Your task to perform on an android device: Open the map Image 0: 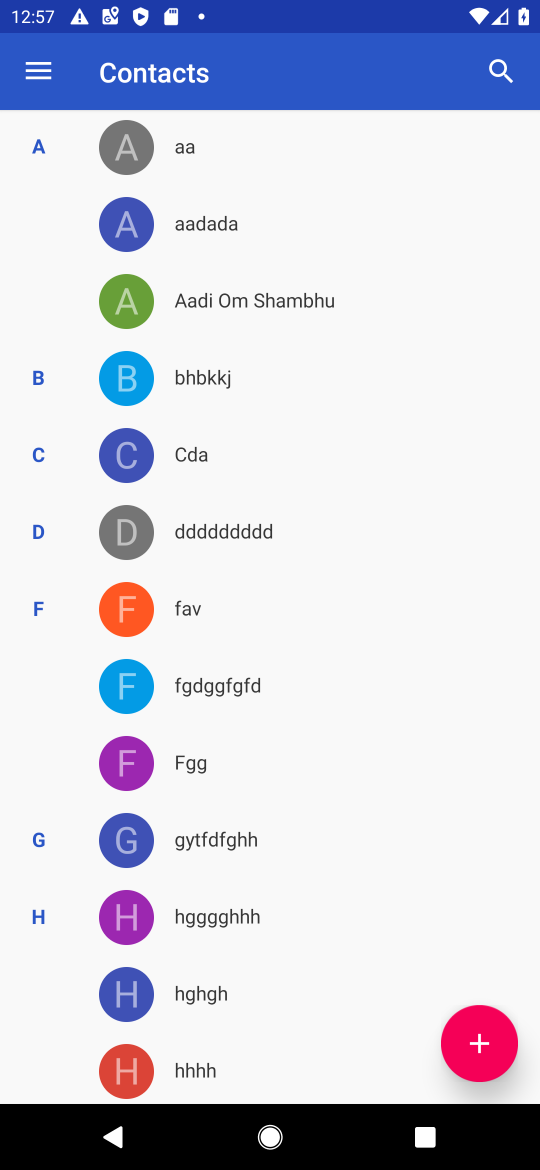
Step 0: press back button
Your task to perform on an android device: Open the map Image 1: 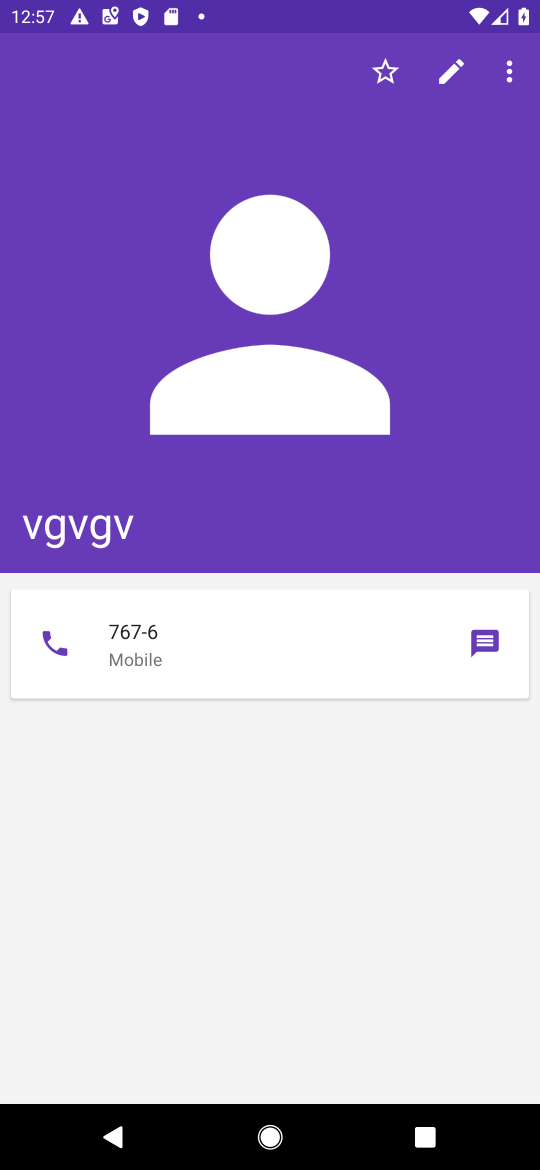
Step 1: press back button
Your task to perform on an android device: Open the map Image 2: 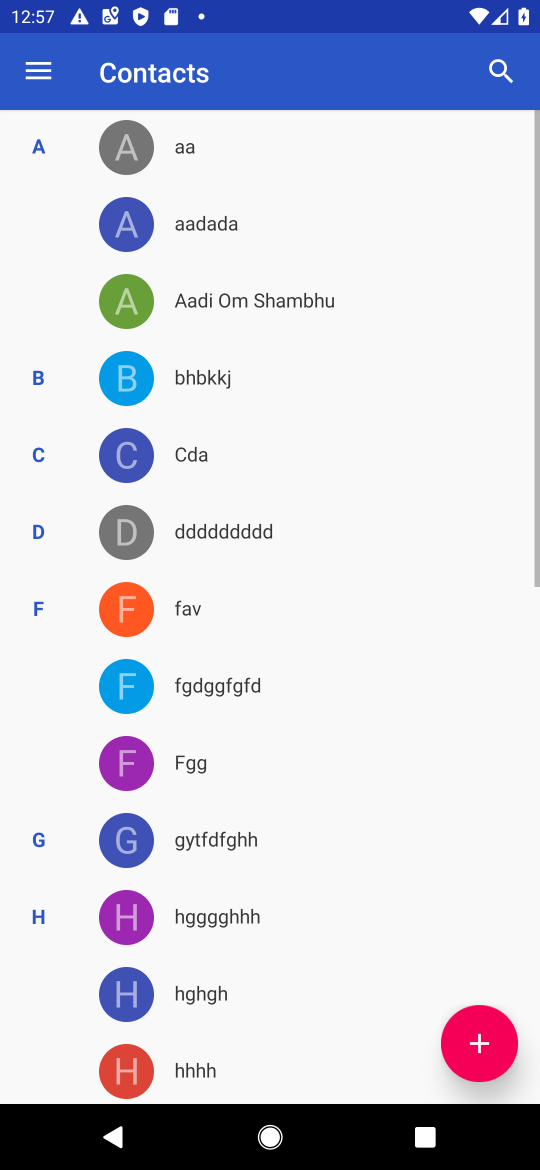
Step 2: press back button
Your task to perform on an android device: Open the map Image 3: 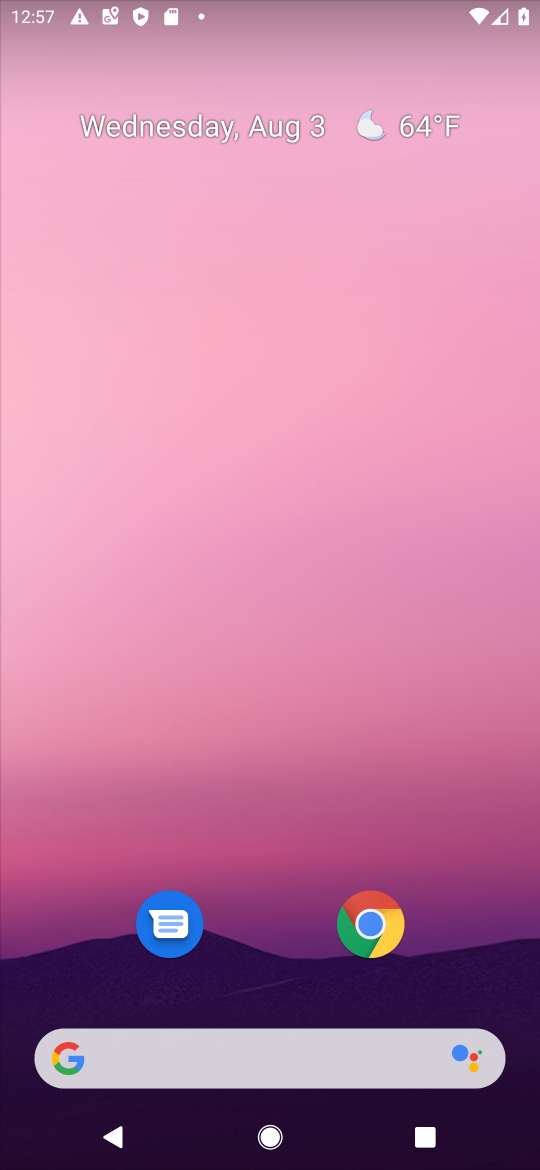
Step 3: drag from (343, 827) to (481, 29)
Your task to perform on an android device: Open the map Image 4: 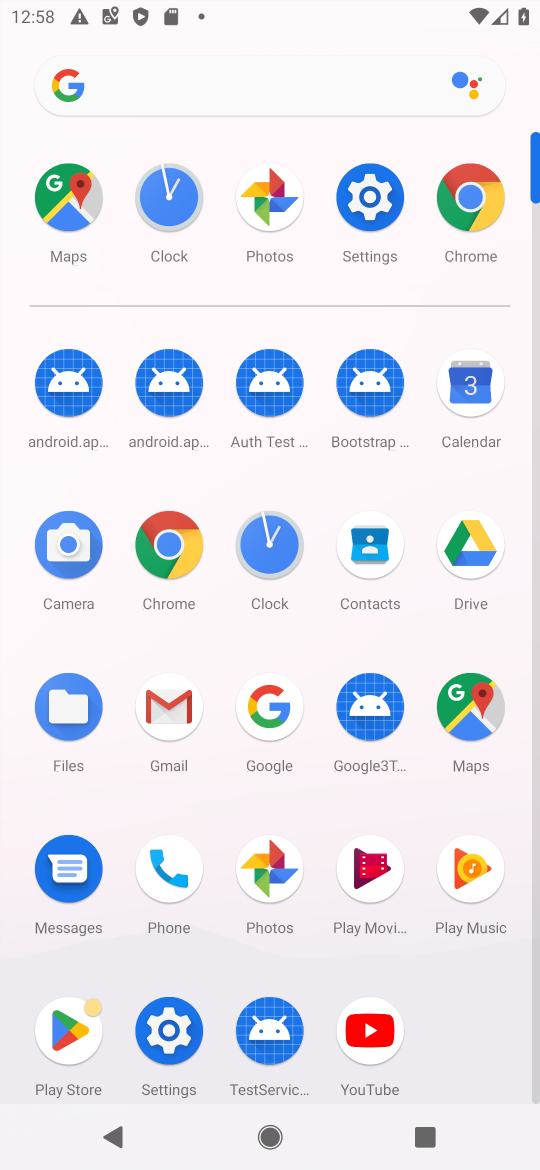
Step 4: click (75, 201)
Your task to perform on an android device: Open the map Image 5: 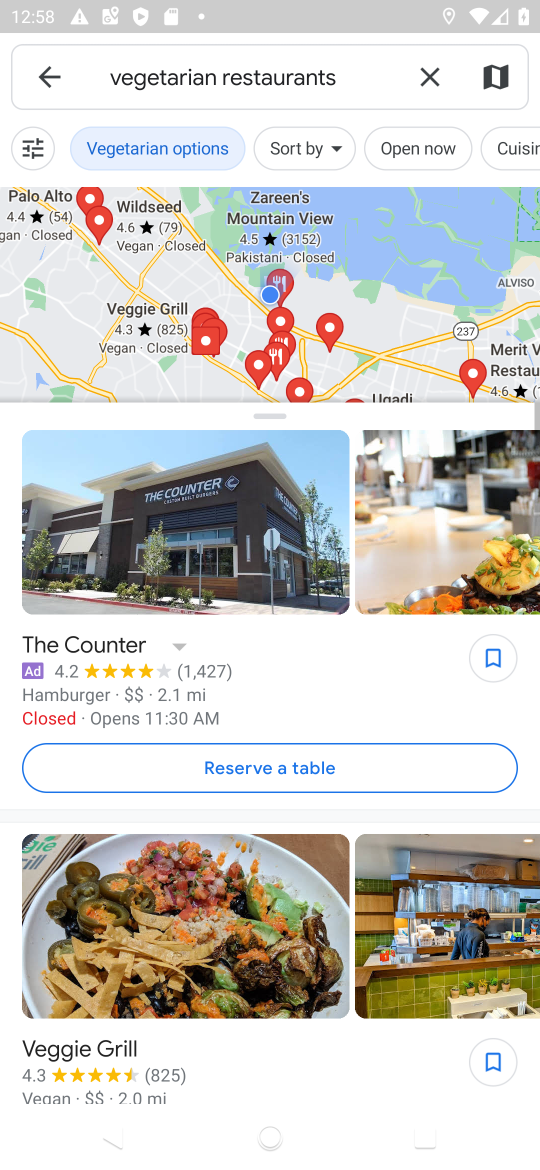
Step 5: task complete